Your task to perform on an android device: toggle translation in the chrome app Image 0: 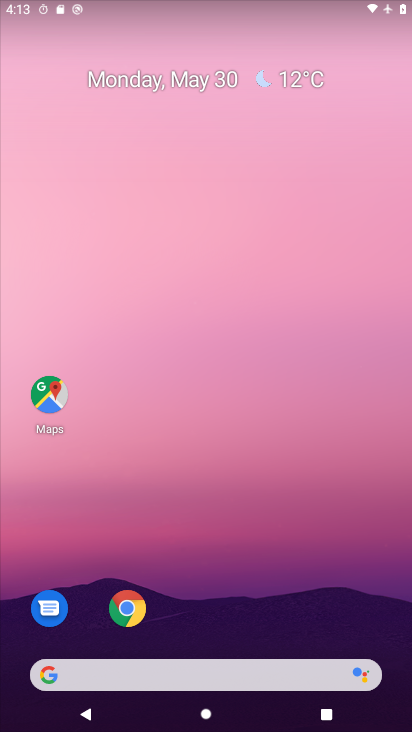
Step 0: click (136, 607)
Your task to perform on an android device: toggle translation in the chrome app Image 1: 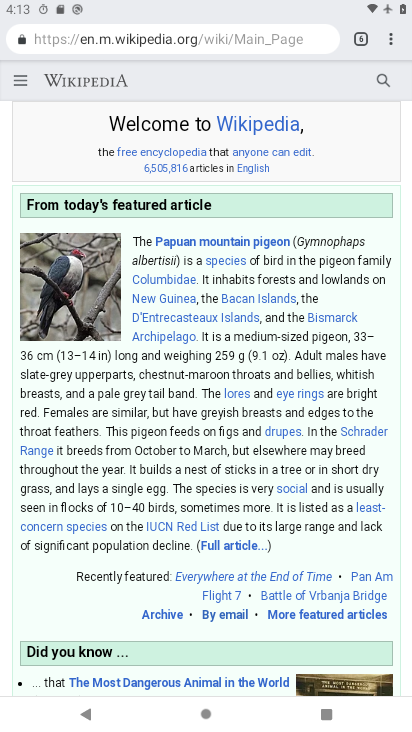
Step 1: click (386, 37)
Your task to perform on an android device: toggle translation in the chrome app Image 2: 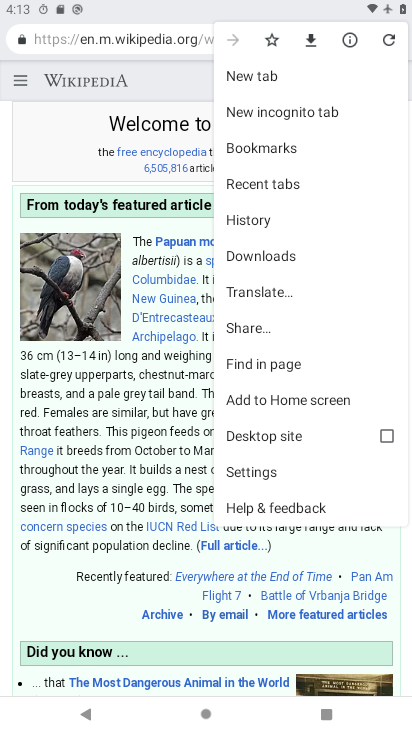
Step 2: click (269, 465)
Your task to perform on an android device: toggle translation in the chrome app Image 3: 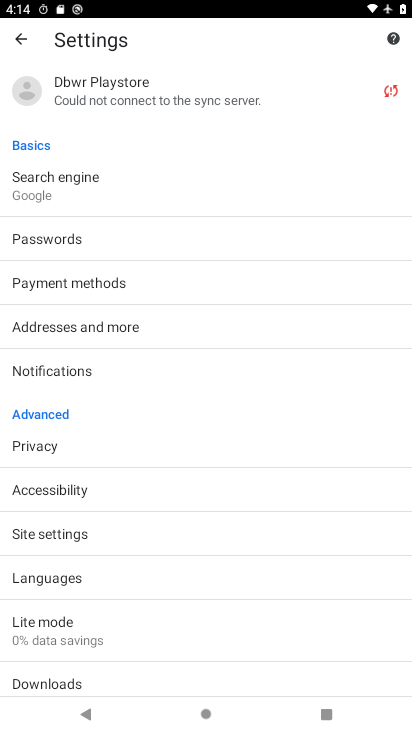
Step 3: click (143, 572)
Your task to perform on an android device: toggle translation in the chrome app Image 4: 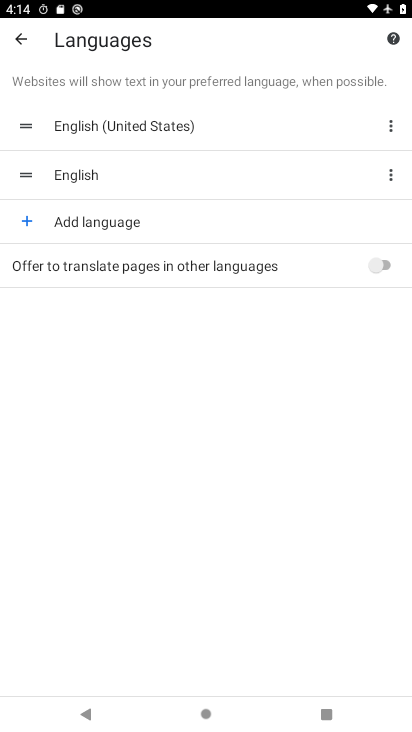
Step 4: click (382, 256)
Your task to perform on an android device: toggle translation in the chrome app Image 5: 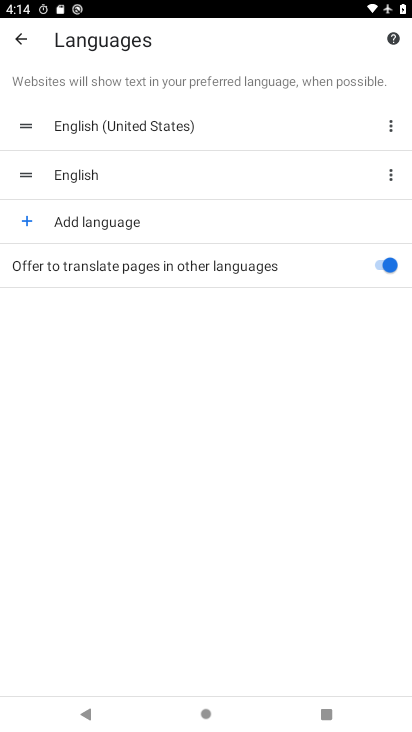
Step 5: task complete